Your task to perform on an android device: check android version Image 0: 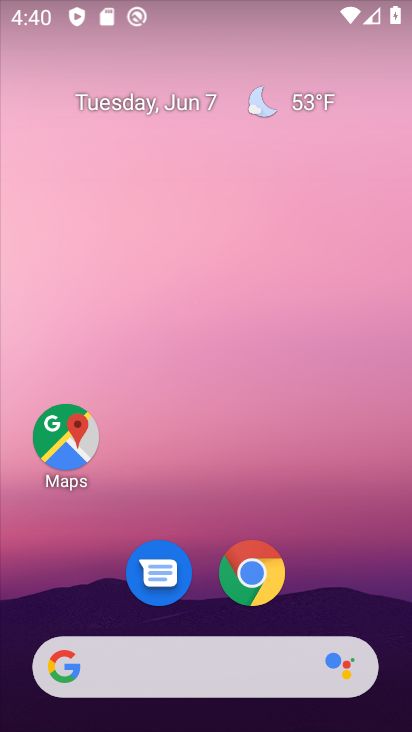
Step 0: drag from (207, 630) to (229, 267)
Your task to perform on an android device: check android version Image 1: 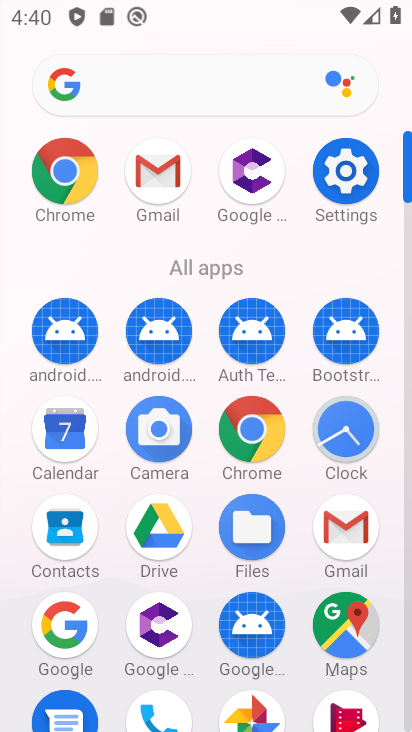
Step 1: click (348, 179)
Your task to perform on an android device: check android version Image 2: 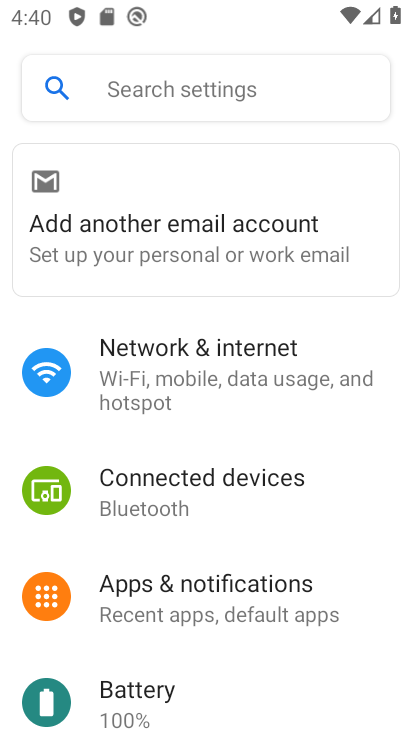
Step 2: drag from (173, 701) to (148, 186)
Your task to perform on an android device: check android version Image 3: 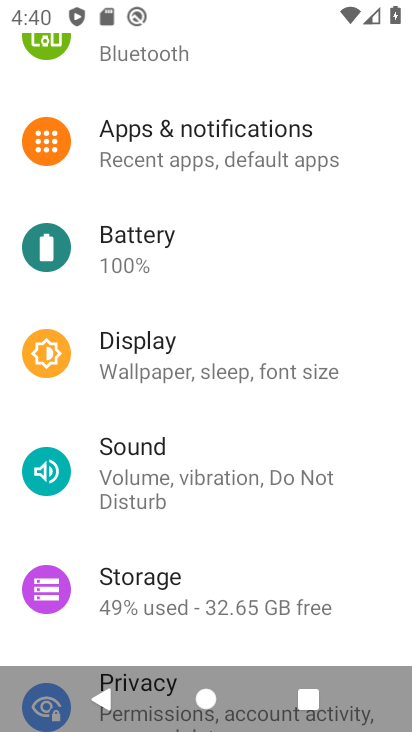
Step 3: drag from (171, 624) to (203, 205)
Your task to perform on an android device: check android version Image 4: 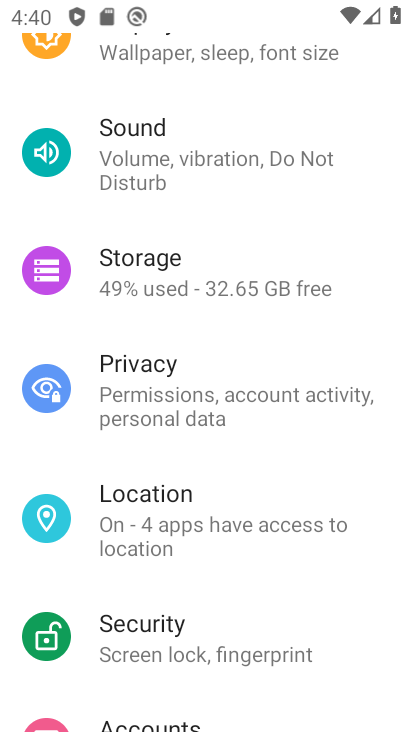
Step 4: drag from (153, 678) to (165, 174)
Your task to perform on an android device: check android version Image 5: 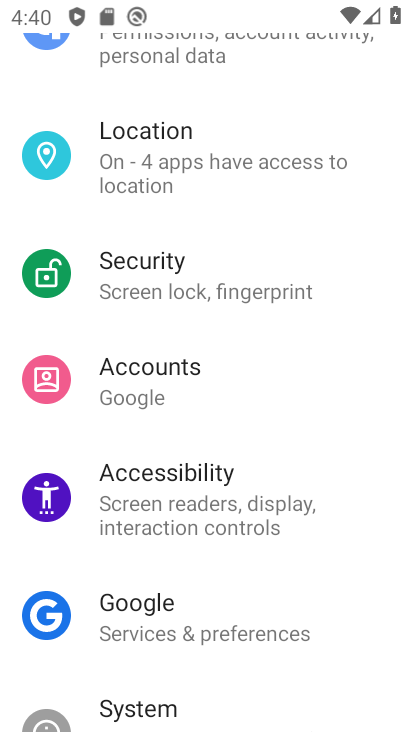
Step 5: drag from (134, 673) to (182, 215)
Your task to perform on an android device: check android version Image 6: 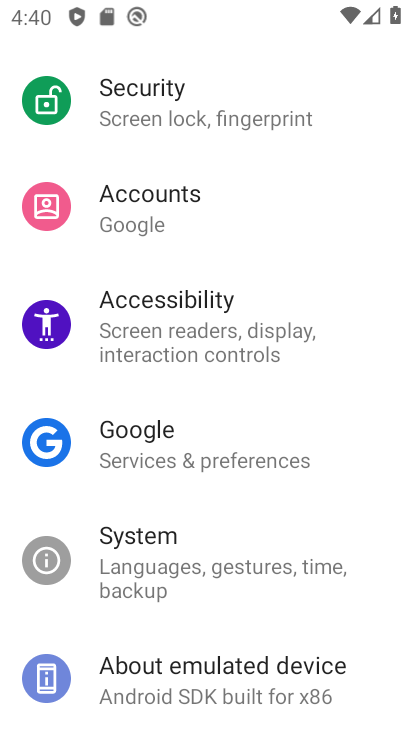
Step 6: click (163, 688)
Your task to perform on an android device: check android version Image 7: 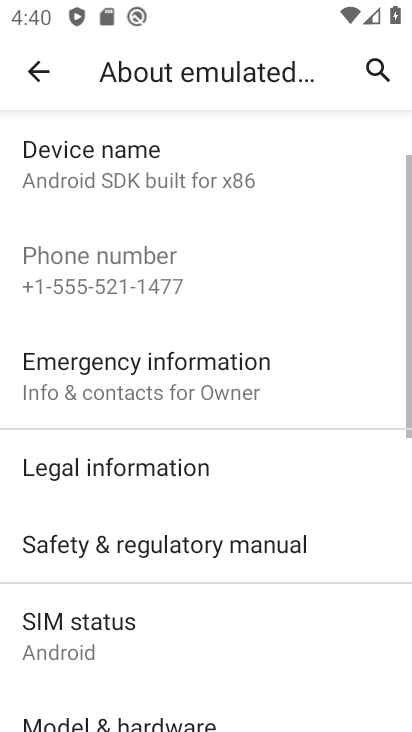
Step 7: drag from (149, 683) to (173, 258)
Your task to perform on an android device: check android version Image 8: 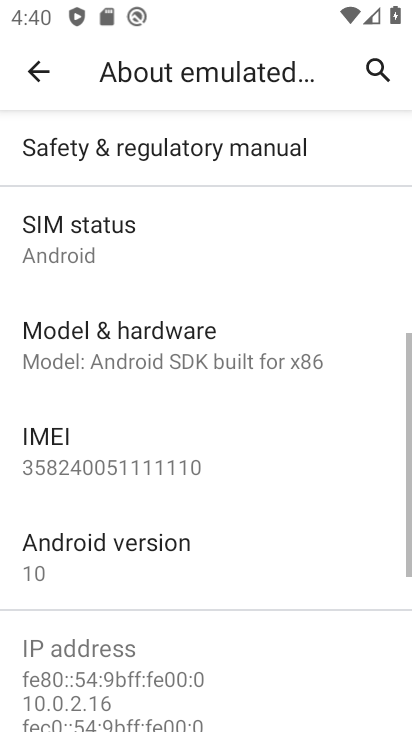
Step 8: click (106, 561)
Your task to perform on an android device: check android version Image 9: 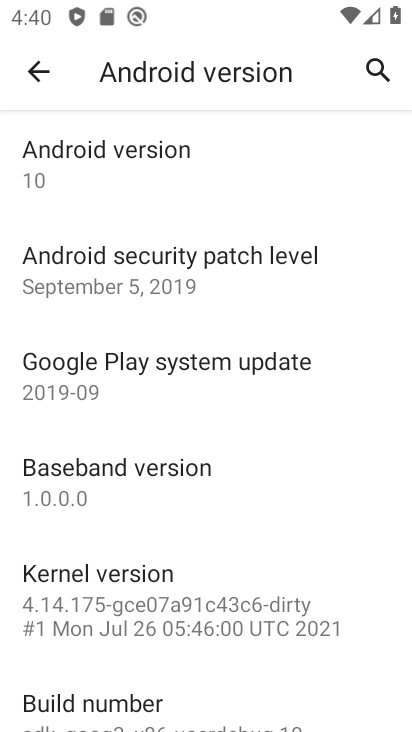
Step 9: task complete